Your task to perform on an android device: Show the shopping cart on amazon. Search for usb-c to usb-b on amazon, select the first entry, add it to the cart, then select checkout. Image 0: 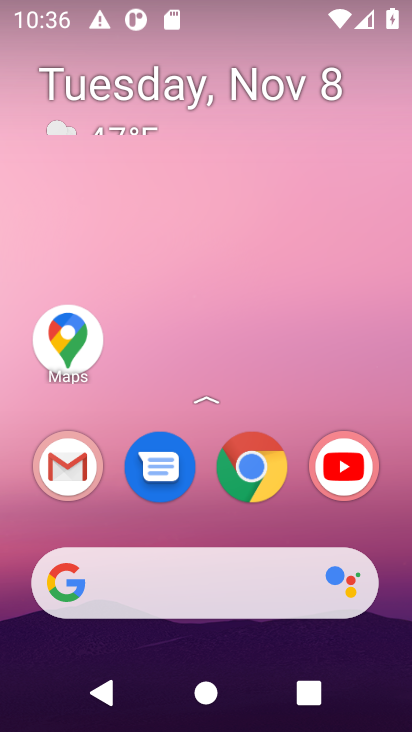
Step 0: click (244, 602)
Your task to perform on an android device: Show the shopping cart on amazon. Search for usb-c to usb-b on amazon, select the first entry, add it to the cart, then select checkout. Image 1: 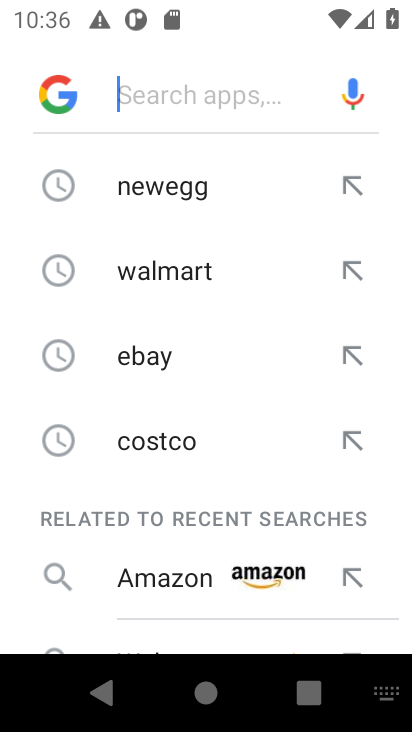
Step 1: click (230, 581)
Your task to perform on an android device: Show the shopping cart on amazon. Search for usb-c to usb-b on amazon, select the first entry, add it to the cart, then select checkout. Image 2: 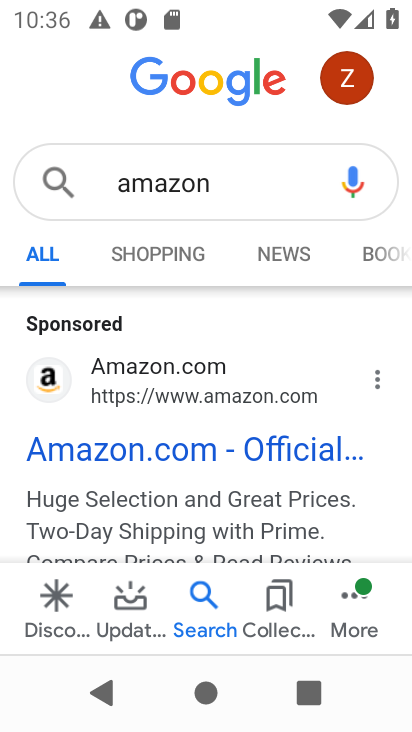
Step 2: click (228, 473)
Your task to perform on an android device: Show the shopping cart on amazon. Search for usb-c to usb-b on amazon, select the first entry, add it to the cart, then select checkout. Image 3: 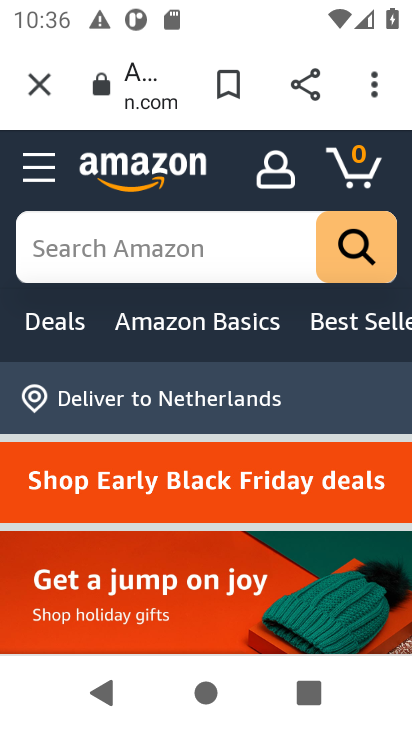
Step 3: task complete